Your task to perform on an android device: Search for Mexican restaurants on Maps Image 0: 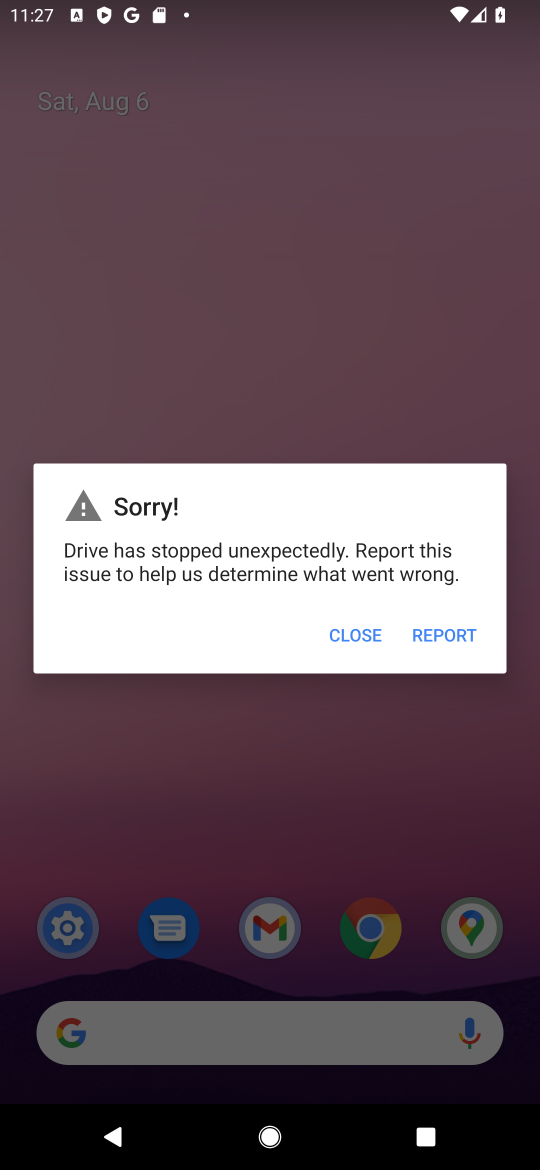
Step 0: click (368, 633)
Your task to perform on an android device: Search for Mexican restaurants on Maps Image 1: 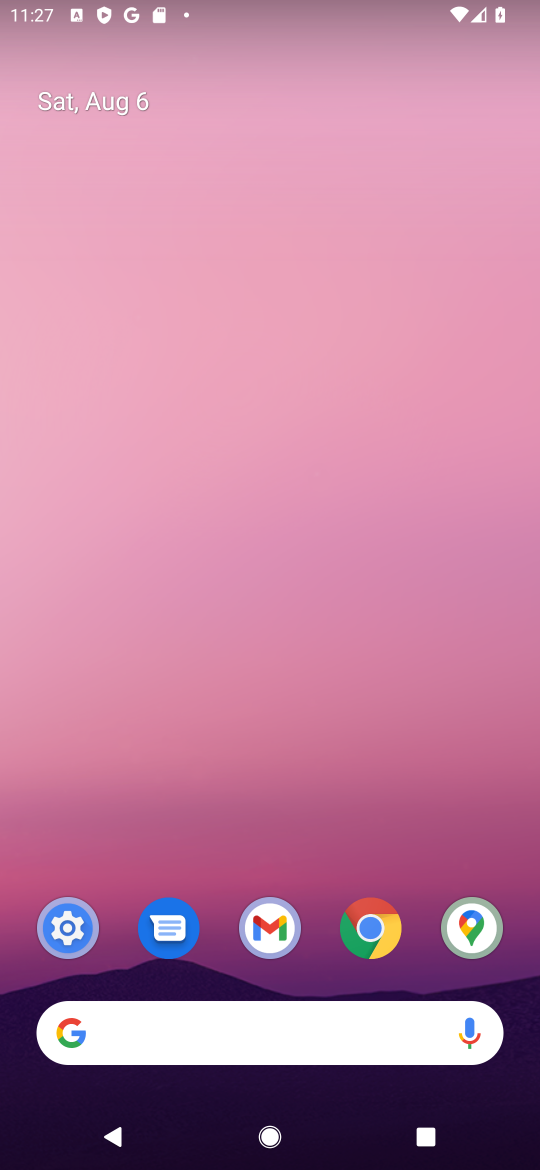
Step 1: click (485, 923)
Your task to perform on an android device: Search for Mexican restaurants on Maps Image 2: 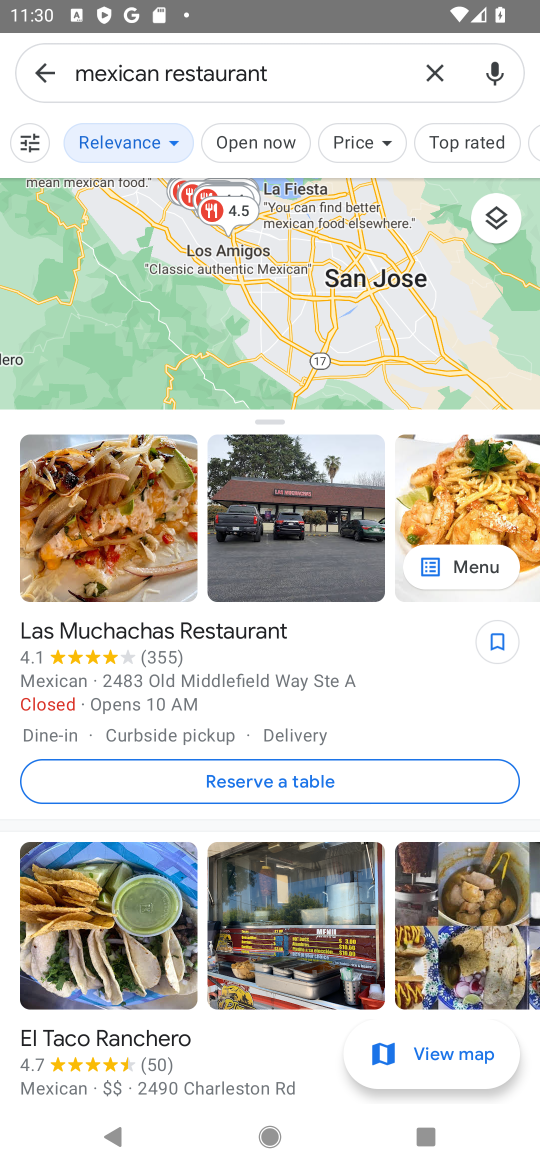
Step 2: task complete